Your task to perform on an android device: toggle data saver in the chrome app Image 0: 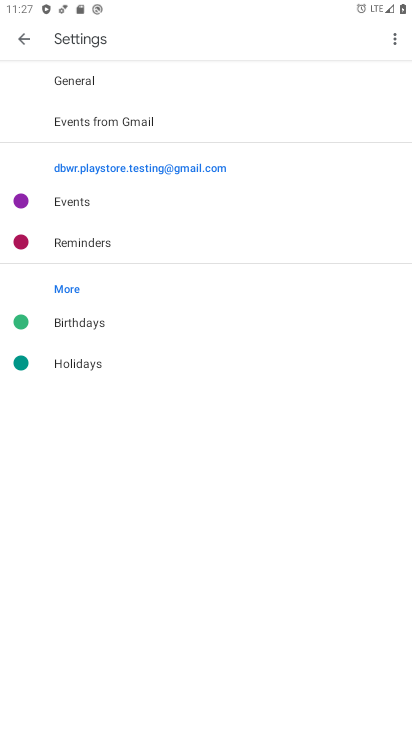
Step 0: press home button
Your task to perform on an android device: toggle data saver in the chrome app Image 1: 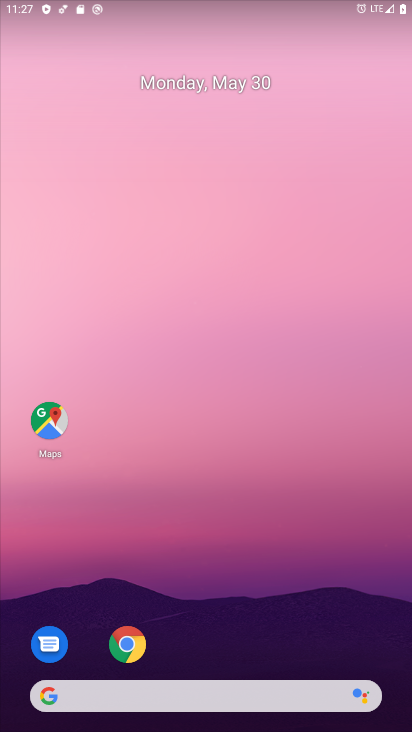
Step 1: drag from (319, 627) to (315, 177)
Your task to perform on an android device: toggle data saver in the chrome app Image 2: 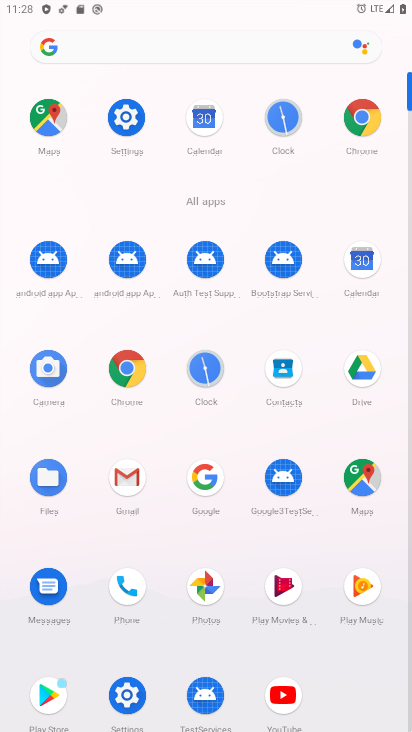
Step 2: click (365, 102)
Your task to perform on an android device: toggle data saver in the chrome app Image 3: 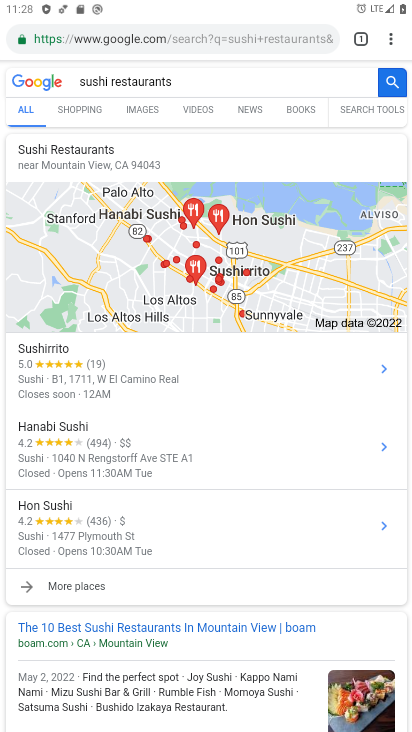
Step 3: drag from (403, 36) to (296, 433)
Your task to perform on an android device: toggle data saver in the chrome app Image 4: 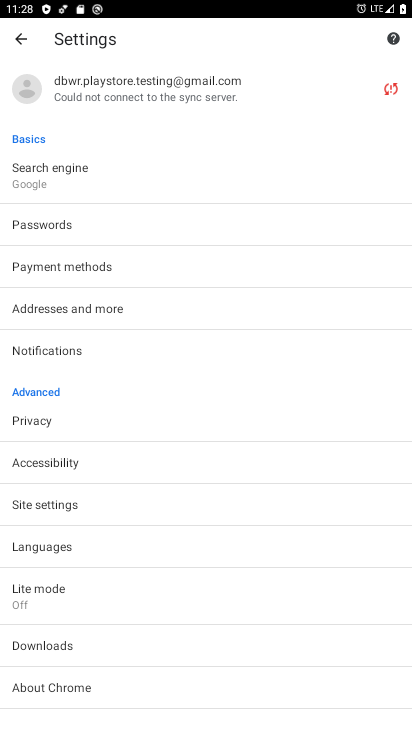
Step 4: drag from (223, 634) to (206, 405)
Your task to perform on an android device: toggle data saver in the chrome app Image 5: 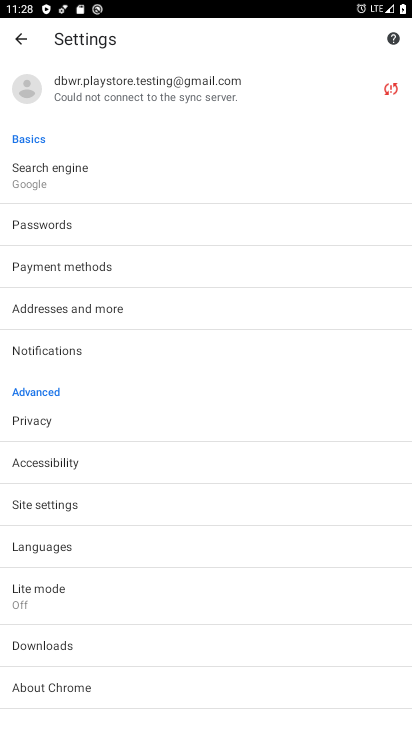
Step 5: click (119, 600)
Your task to perform on an android device: toggle data saver in the chrome app Image 6: 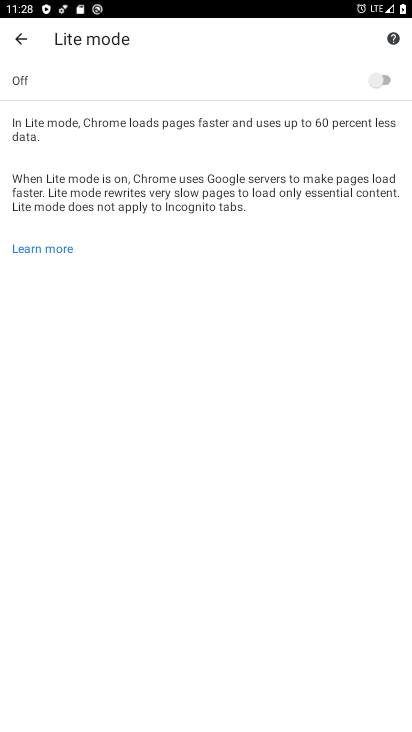
Step 6: click (254, 69)
Your task to perform on an android device: toggle data saver in the chrome app Image 7: 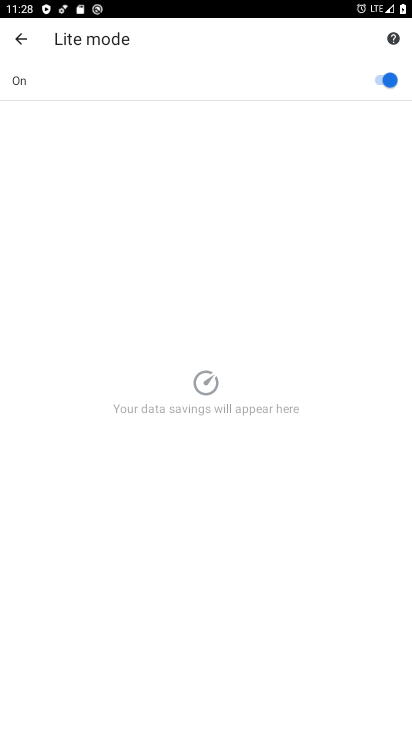
Step 7: task complete